Your task to perform on an android device: Clear all items from cart on ebay.com. Image 0: 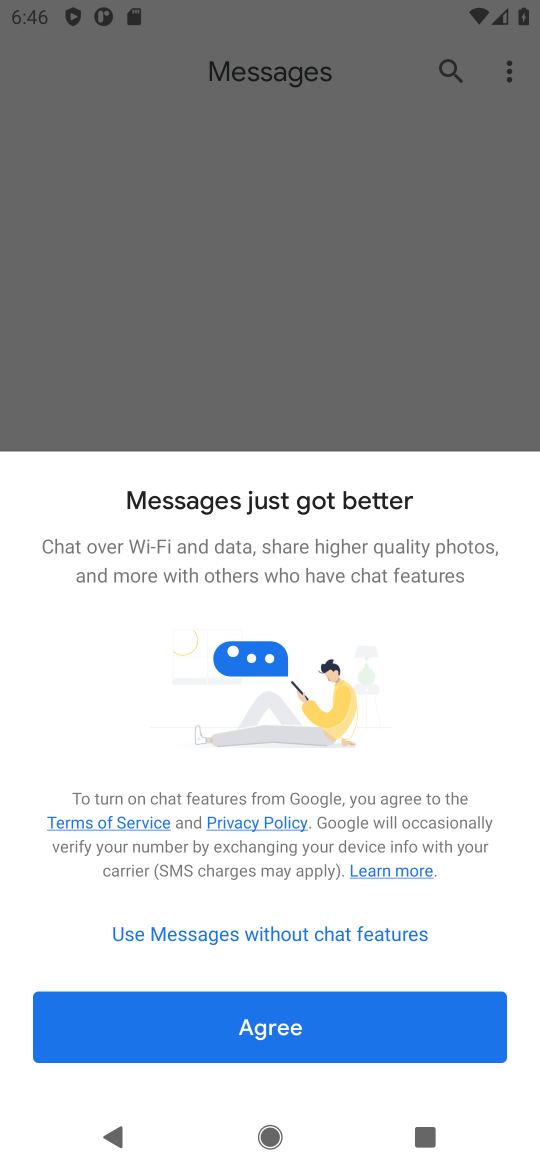
Step 0: click (387, 337)
Your task to perform on an android device: Clear all items from cart on ebay.com. Image 1: 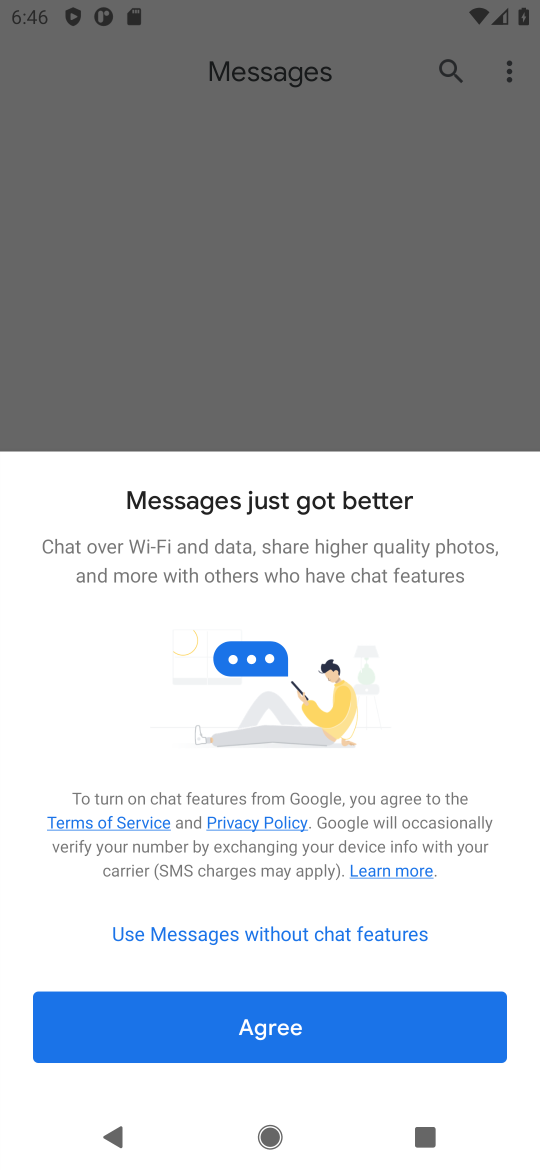
Step 1: press home button
Your task to perform on an android device: Clear all items from cart on ebay.com. Image 2: 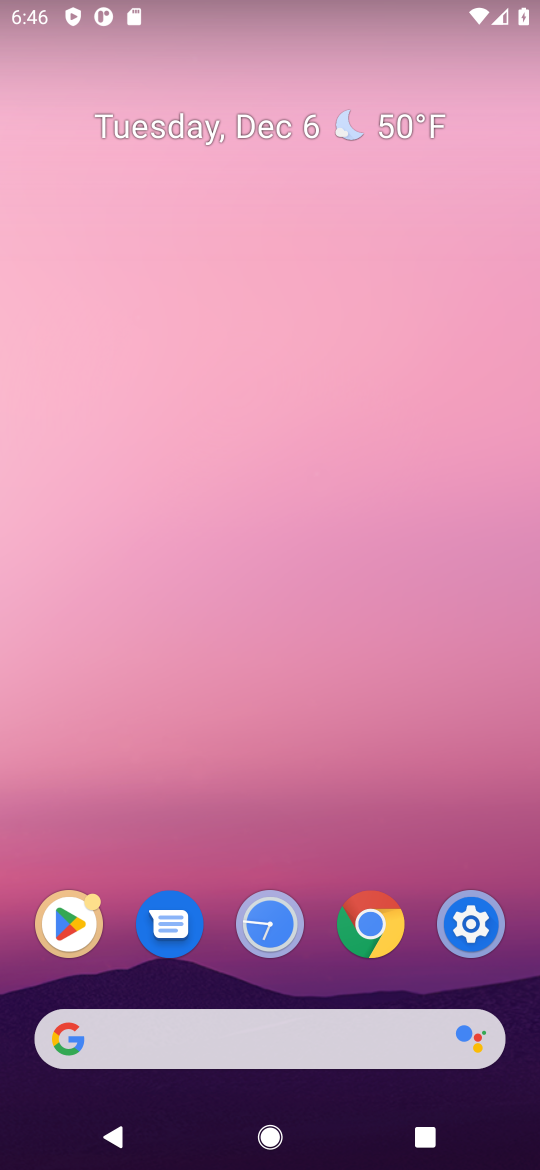
Step 2: click (281, 1029)
Your task to perform on an android device: Clear all items from cart on ebay.com. Image 3: 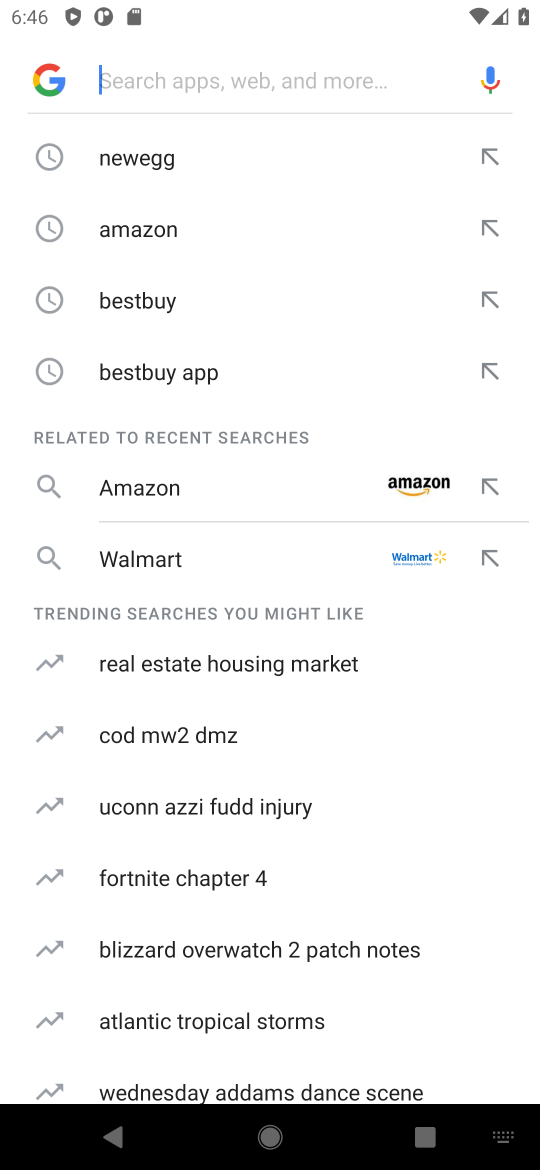
Step 3: type "ebay.com"
Your task to perform on an android device: Clear all items from cart on ebay.com. Image 4: 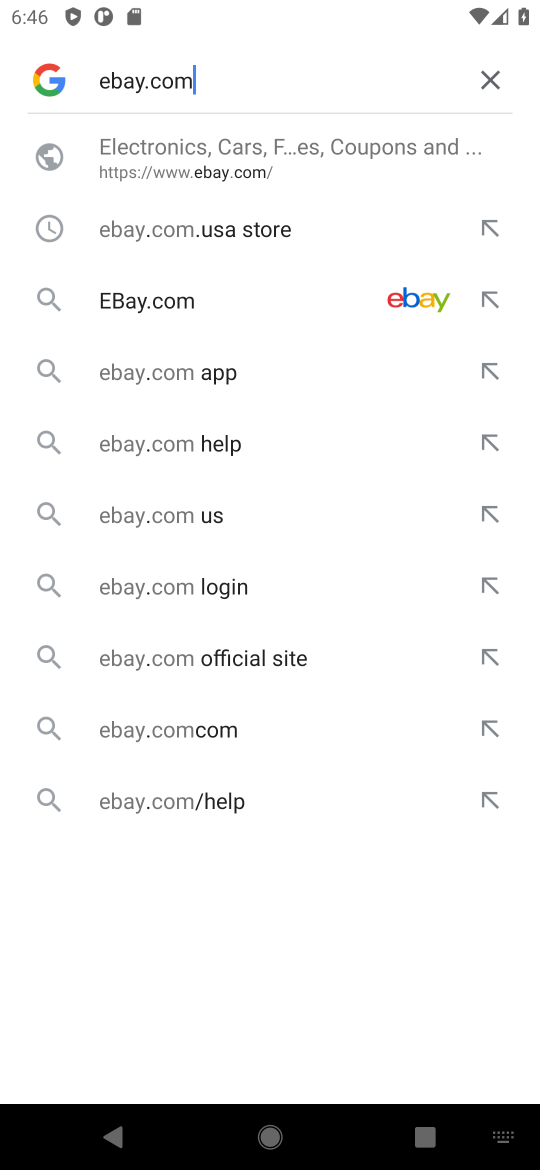
Step 4: click (241, 173)
Your task to perform on an android device: Clear all items from cart on ebay.com. Image 5: 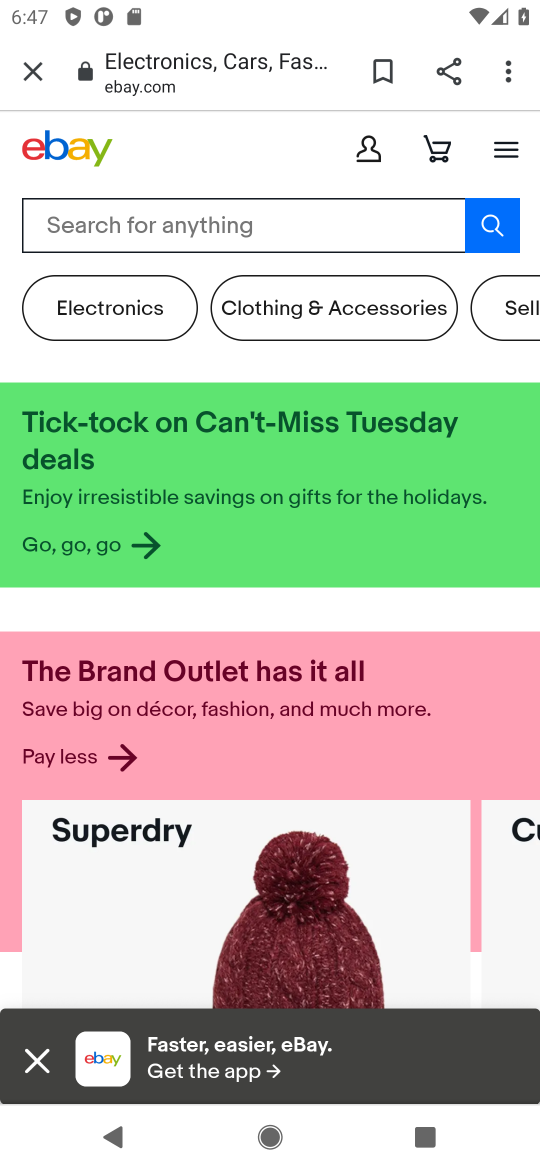
Step 5: click (194, 231)
Your task to perform on an android device: Clear all items from cart on ebay.com. Image 6: 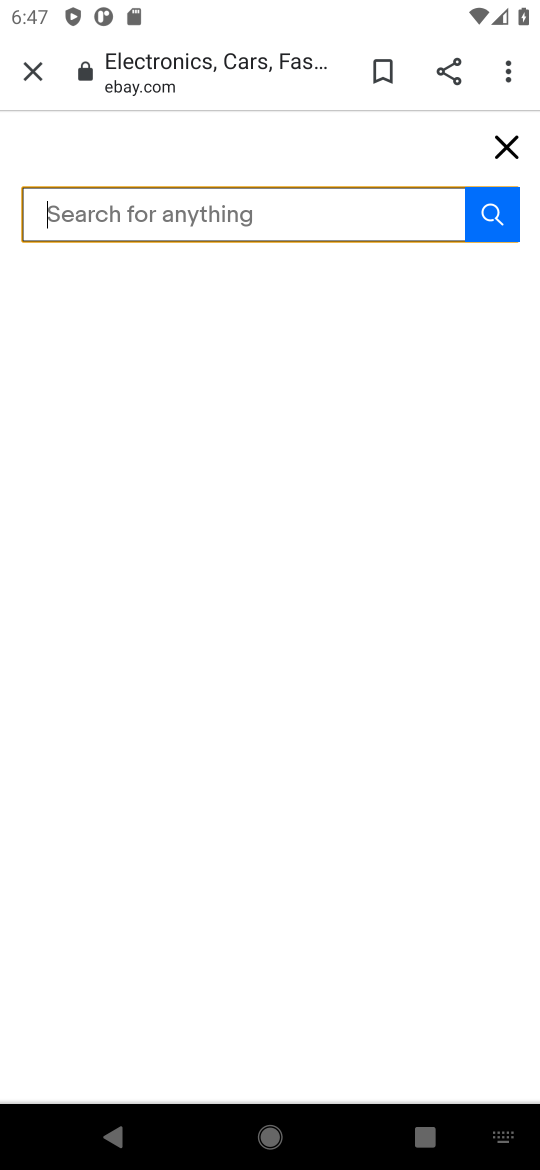
Step 6: type "ebay.com"
Your task to perform on an android device: Clear all items from cart on ebay.com. Image 7: 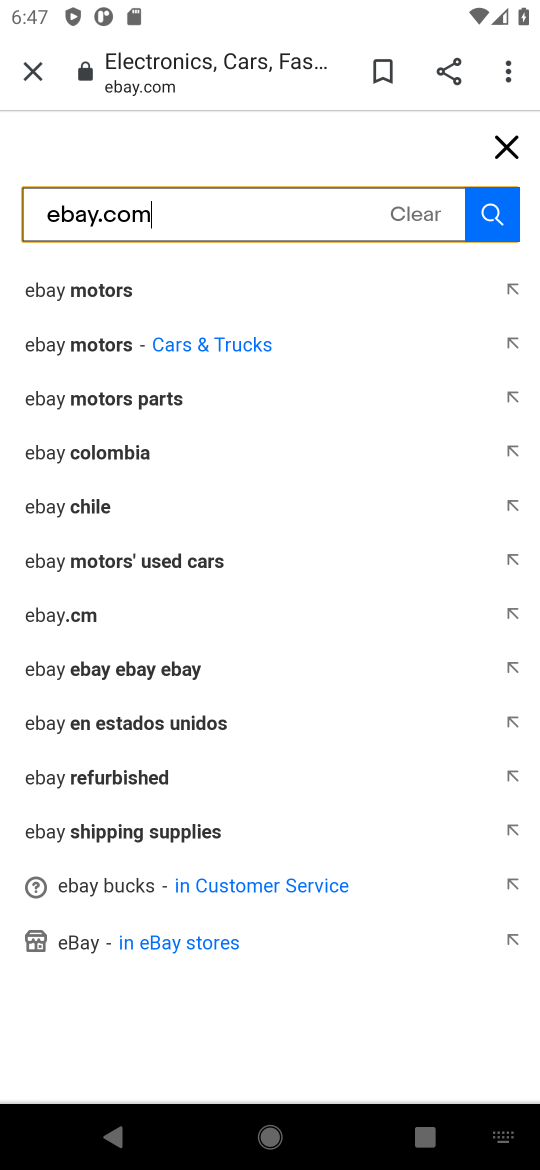
Step 7: click (504, 141)
Your task to perform on an android device: Clear all items from cart on ebay.com. Image 8: 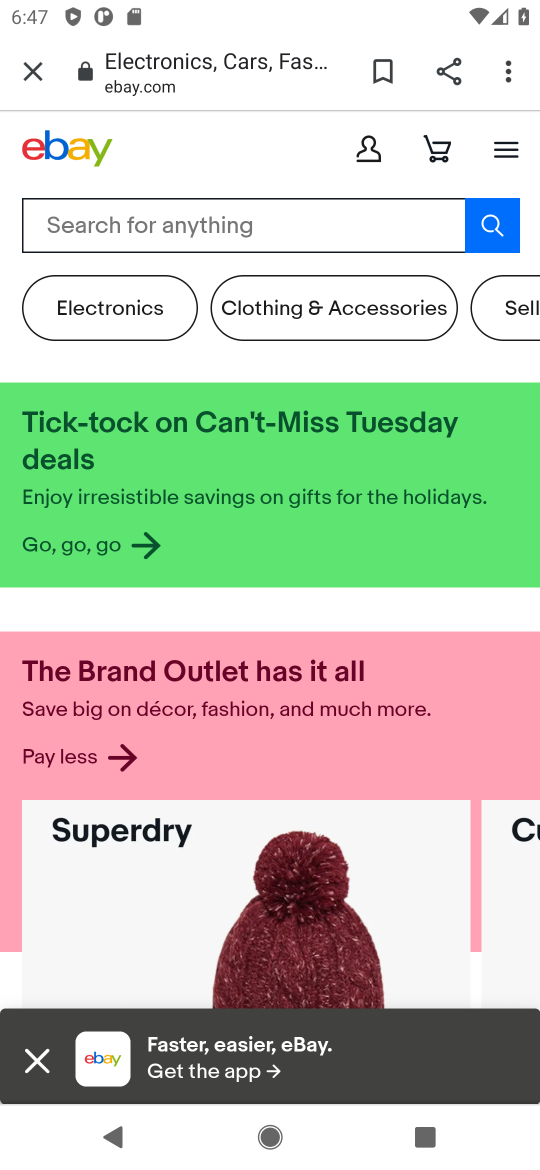
Step 8: click (440, 146)
Your task to perform on an android device: Clear all items from cart on ebay.com. Image 9: 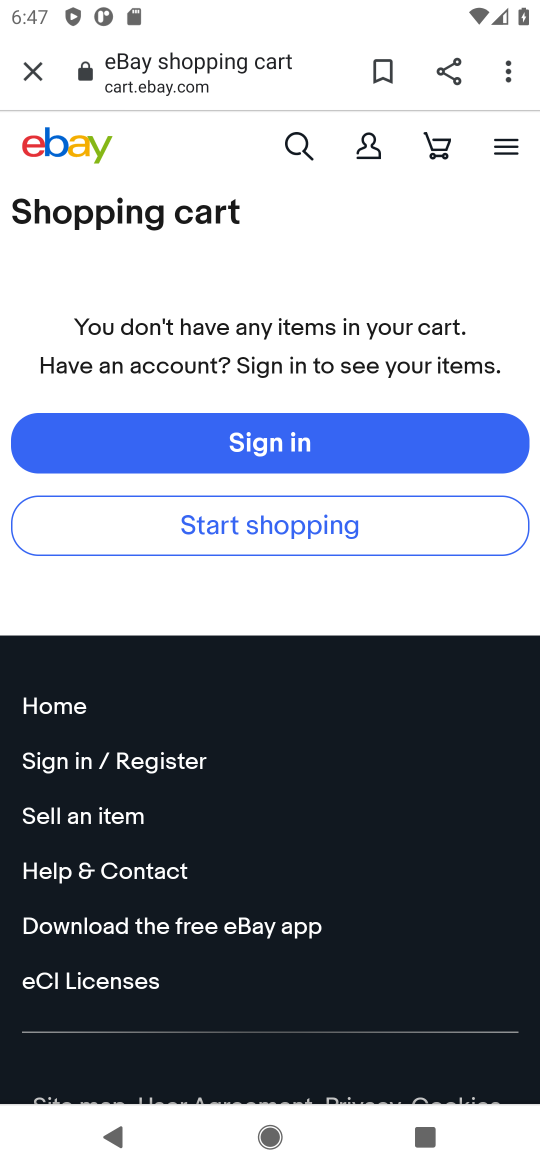
Step 9: task complete